Your task to perform on an android device: Open Youtube and go to the subscriptions tab Image 0: 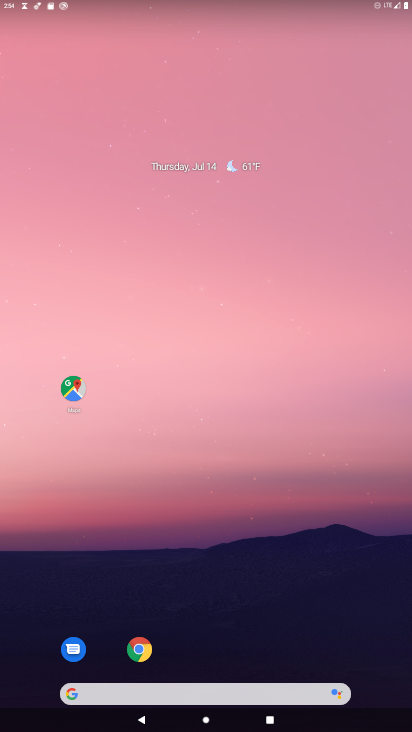
Step 0: drag from (267, 703) to (261, 82)
Your task to perform on an android device: Open Youtube and go to the subscriptions tab Image 1: 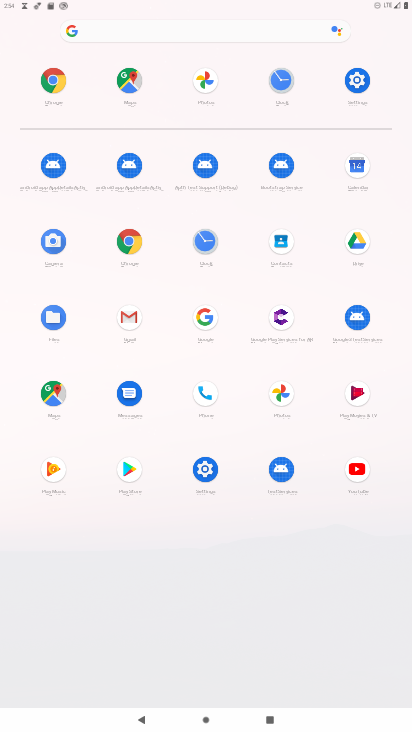
Step 1: click (363, 470)
Your task to perform on an android device: Open Youtube and go to the subscriptions tab Image 2: 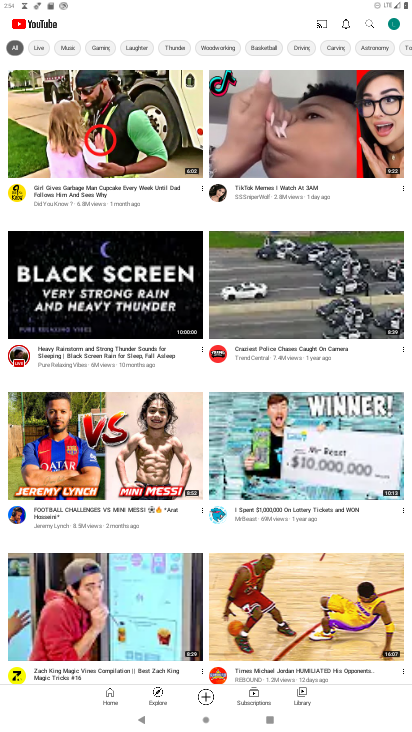
Step 2: click (392, 25)
Your task to perform on an android device: Open Youtube and go to the subscriptions tab Image 3: 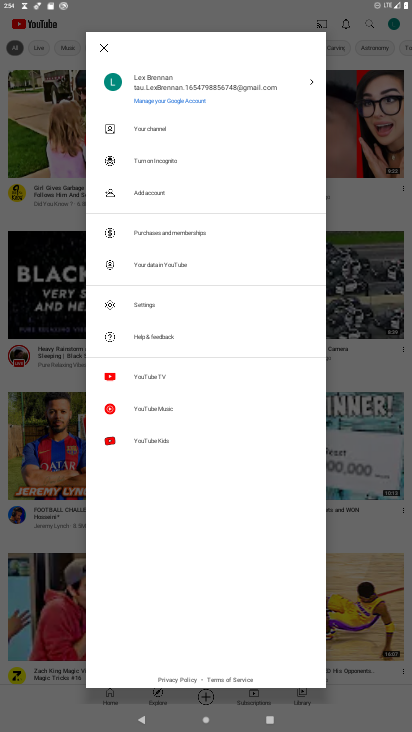
Step 3: click (347, 598)
Your task to perform on an android device: Open Youtube and go to the subscriptions tab Image 4: 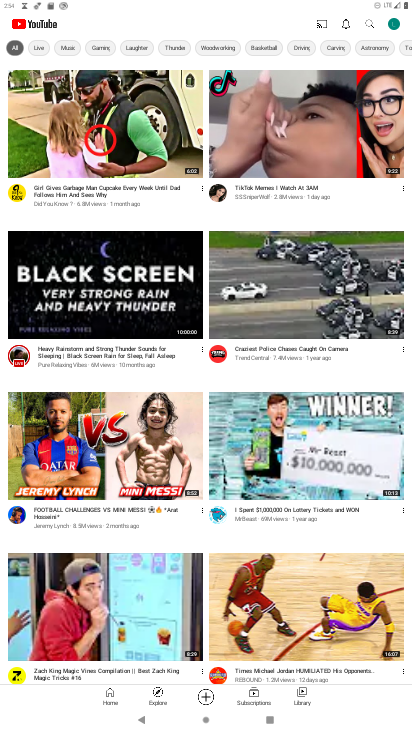
Step 4: click (256, 696)
Your task to perform on an android device: Open Youtube and go to the subscriptions tab Image 5: 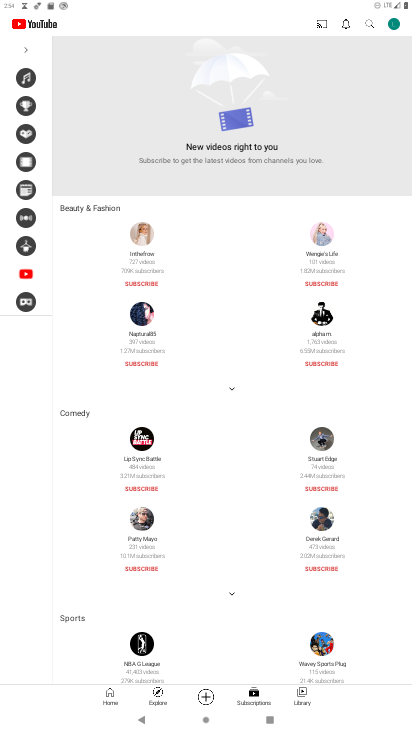
Step 5: task complete